Your task to perform on an android device: Do I have any events today? Image 0: 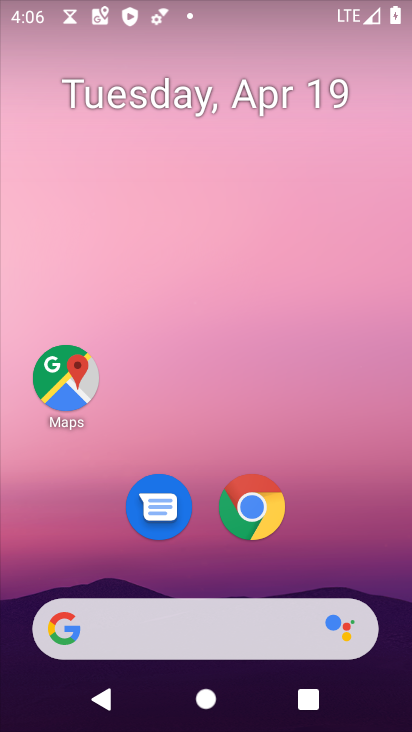
Step 0: drag from (335, 535) to (362, 72)
Your task to perform on an android device: Do I have any events today? Image 1: 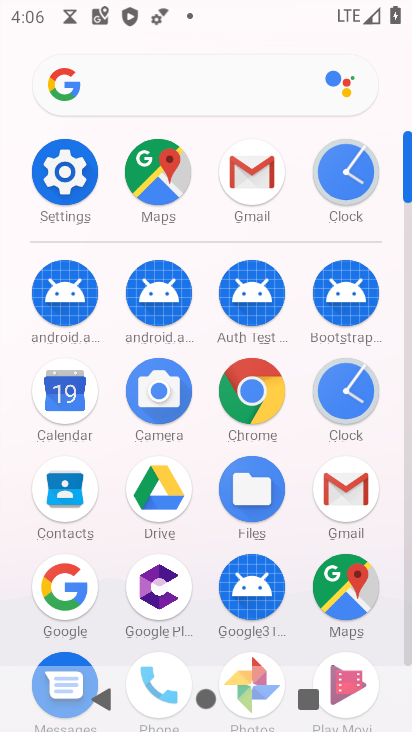
Step 1: click (66, 403)
Your task to perform on an android device: Do I have any events today? Image 2: 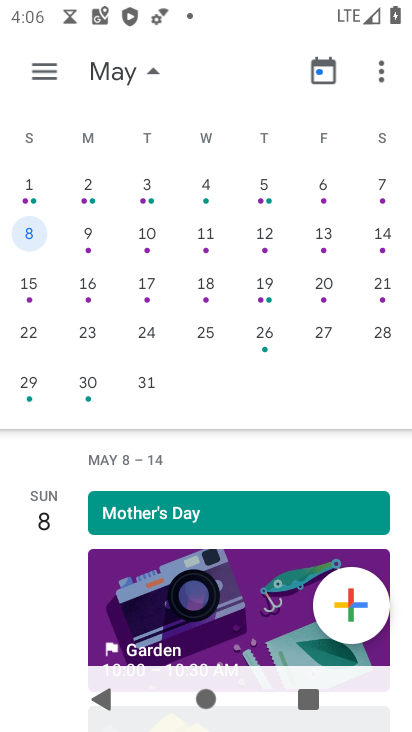
Step 2: drag from (101, 279) to (384, 236)
Your task to perform on an android device: Do I have any events today? Image 3: 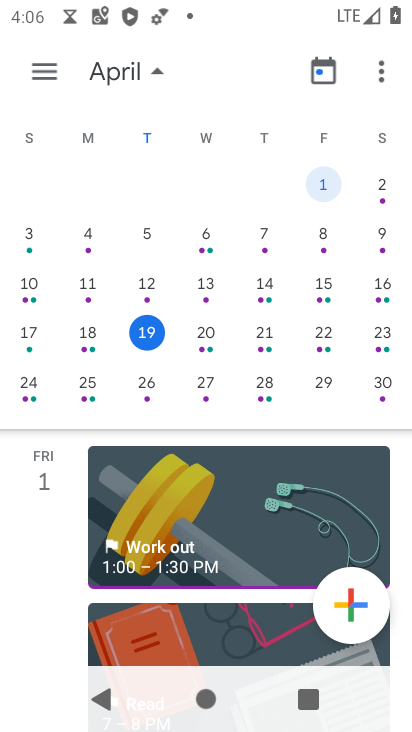
Step 3: click (154, 334)
Your task to perform on an android device: Do I have any events today? Image 4: 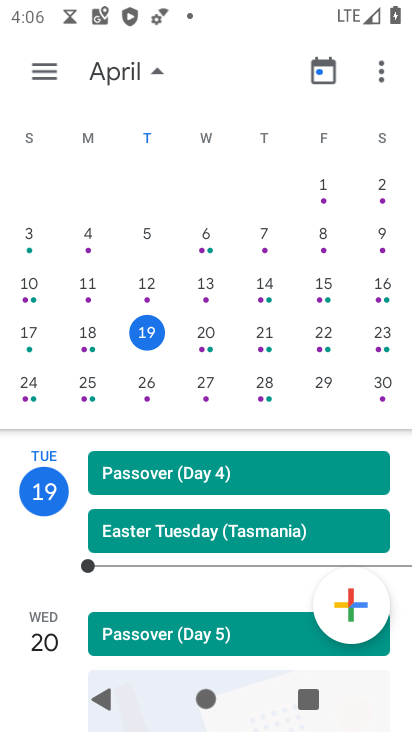
Step 4: task complete